Your task to perform on an android device: see creations saved in the google photos Image 0: 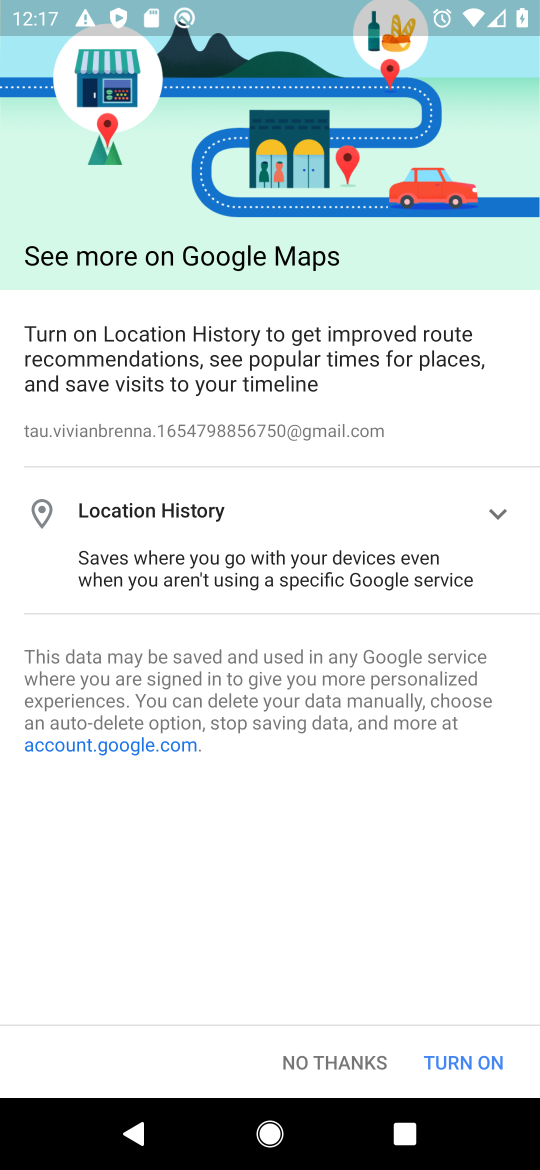
Step 0: task complete